Your task to perform on an android device: Open settings on Google Maps Image 0: 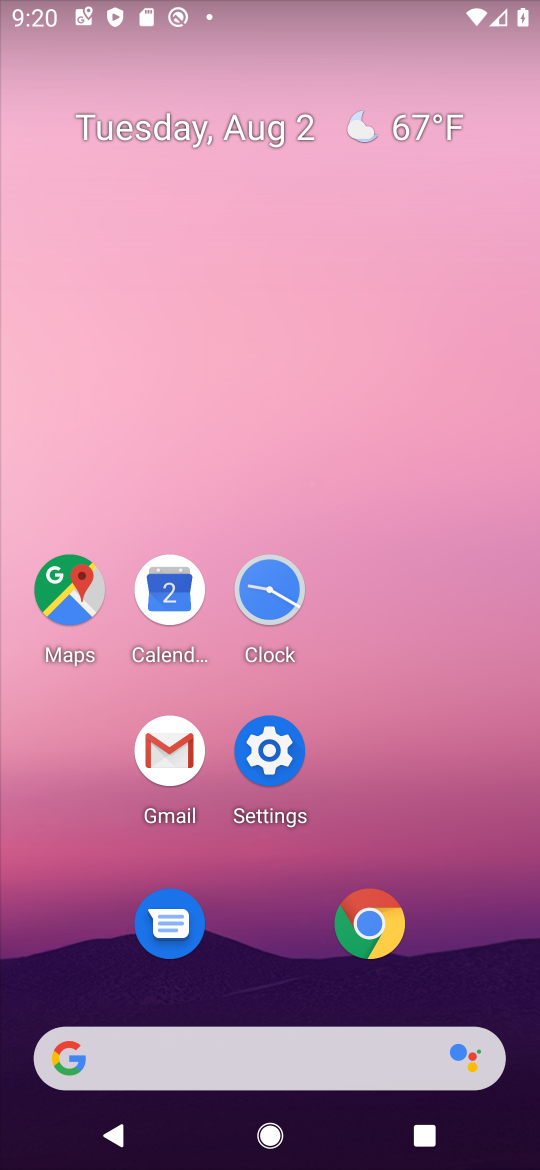
Step 0: click (63, 580)
Your task to perform on an android device: Open settings on Google Maps Image 1: 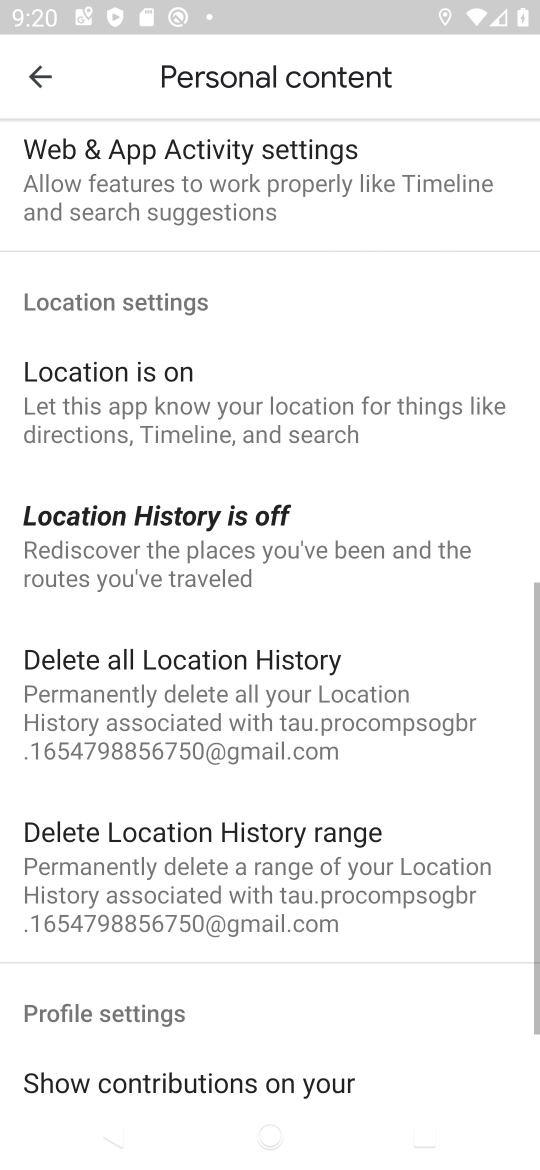
Step 1: click (30, 92)
Your task to perform on an android device: Open settings on Google Maps Image 2: 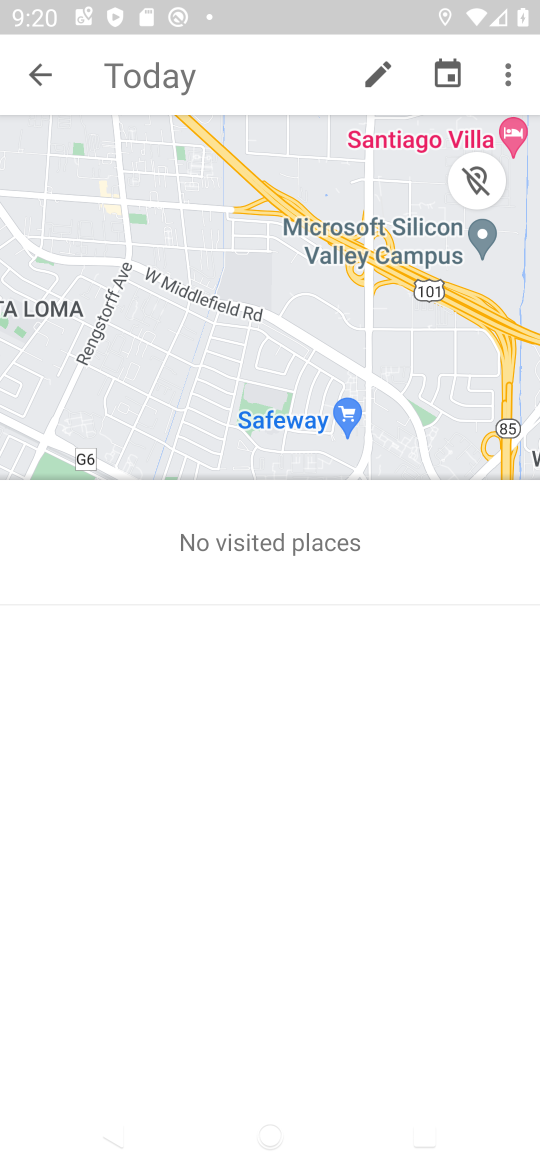
Step 2: click (29, 76)
Your task to perform on an android device: Open settings on Google Maps Image 3: 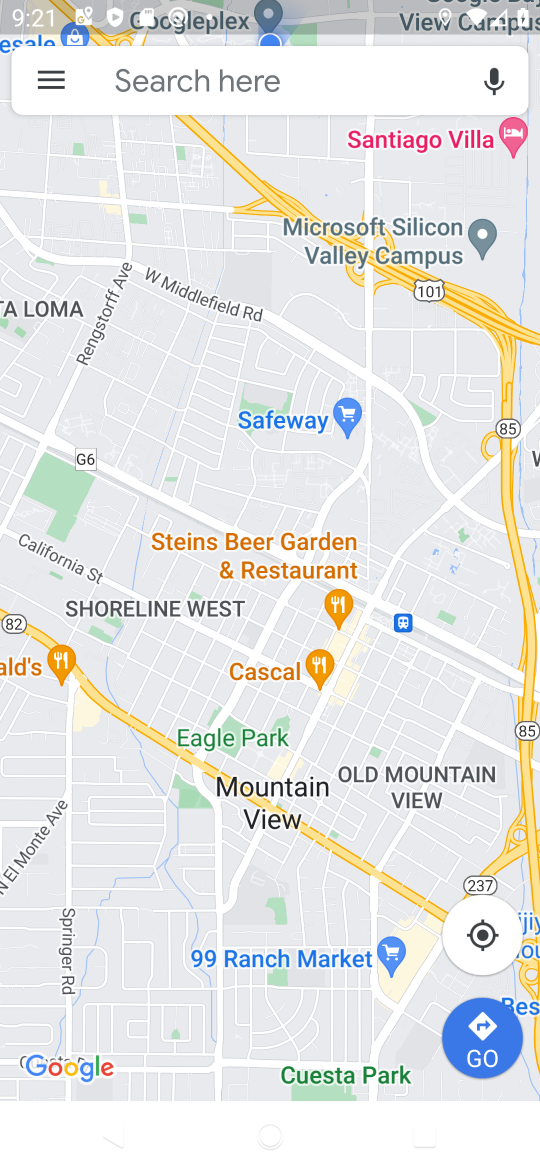
Step 3: click (42, 83)
Your task to perform on an android device: Open settings on Google Maps Image 4: 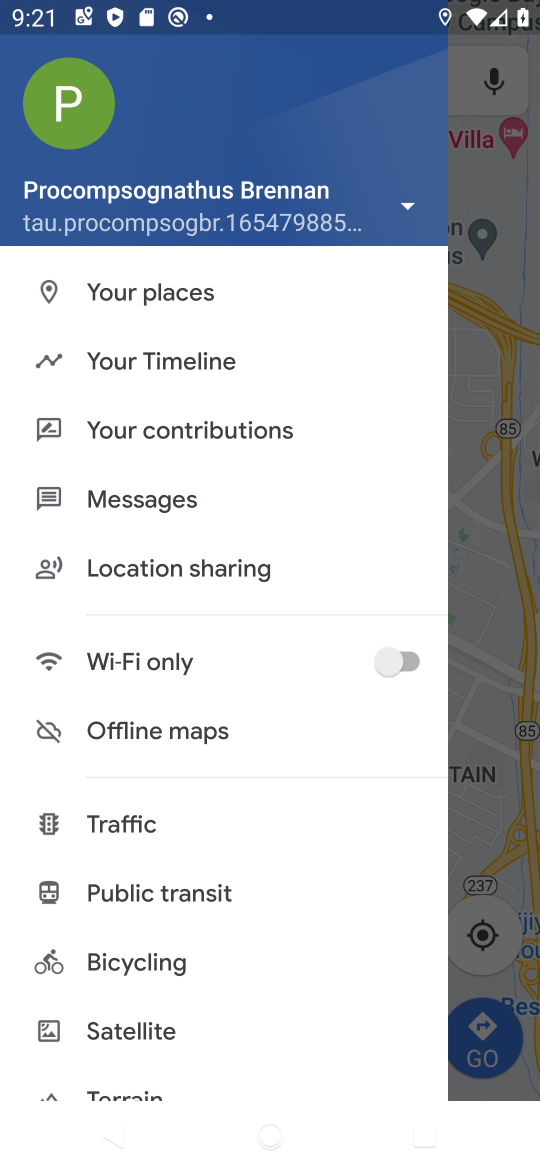
Step 4: drag from (270, 965) to (273, 466)
Your task to perform on an android device: Open settings on Google Maps Image 5: 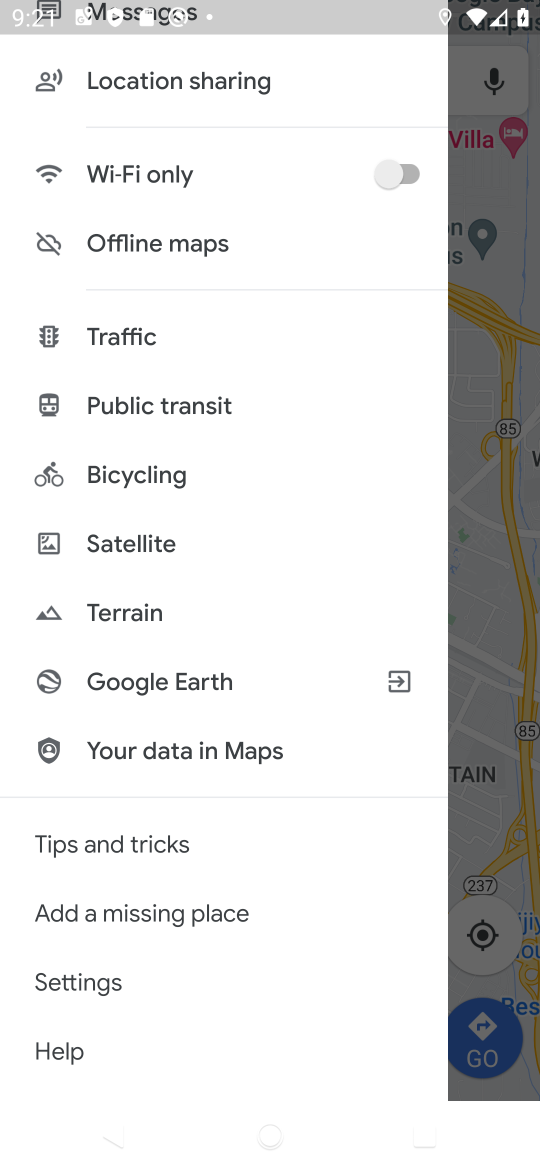
Step 5: click (64, 981)
Your task to perform on an android device: Open settings on Google Maps Image 6: 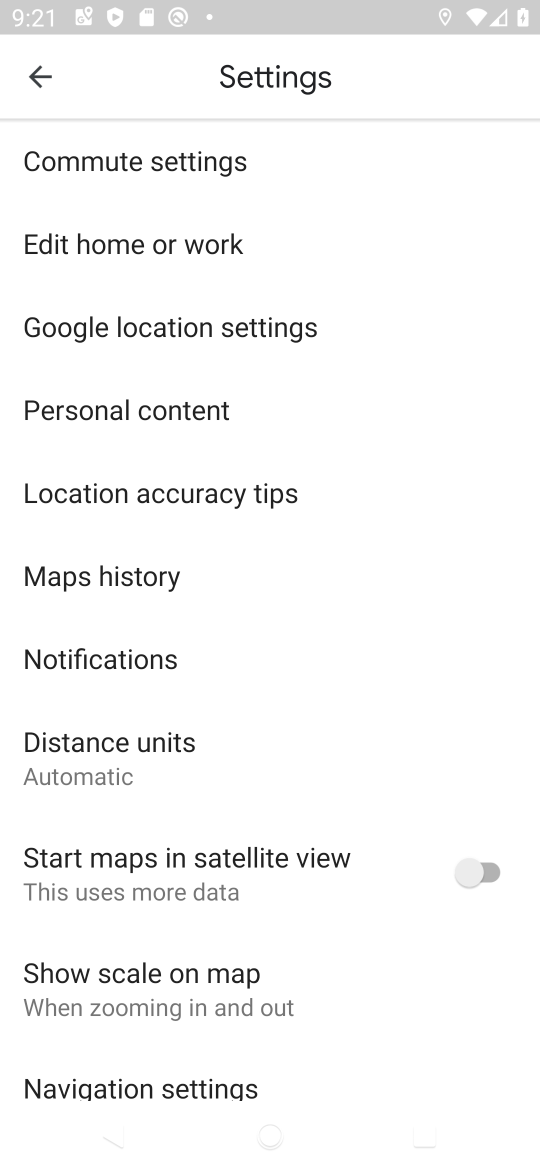
Step 6: task complete